Your task to perform on an android device: Toggle the flashlight Image 0: 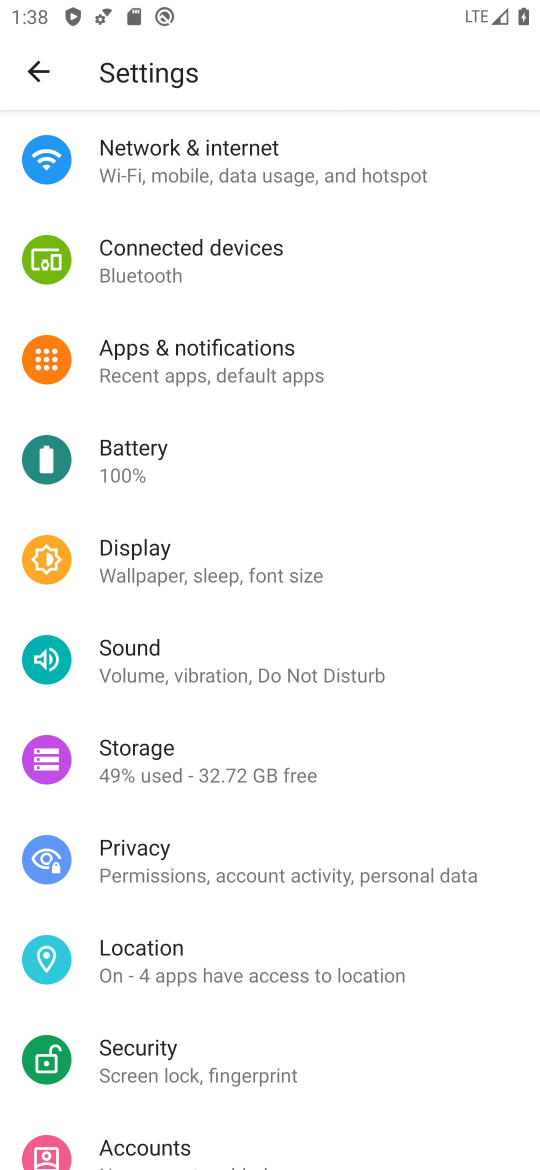
Step 0: task impossible